Your task to perform on an android device: delete browsing data in the chrome app Image 0: 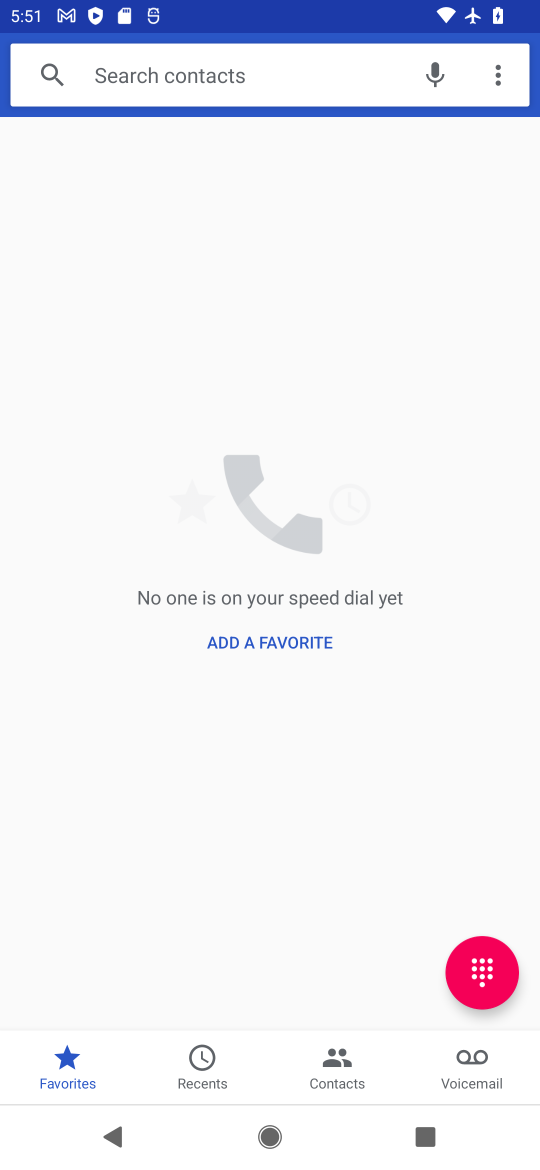
Step 0: press home button
Your task to perform on an android device: delete browsing data in the chrome app Image 1: 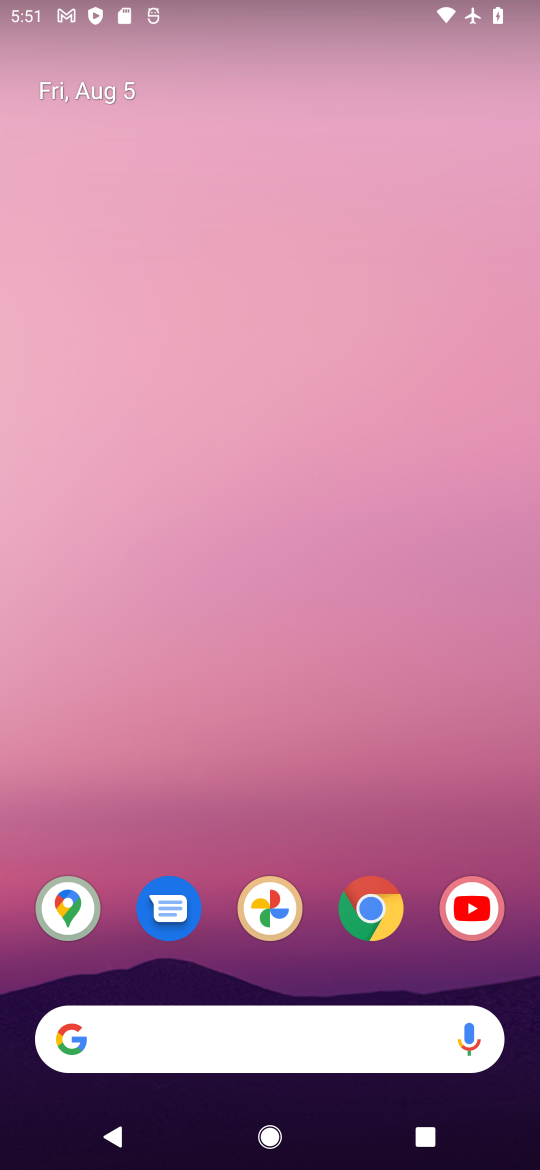
Step 1: click (379, 924)
Your task to perform on an android device: delete browsing data in the chrome app Image 2: 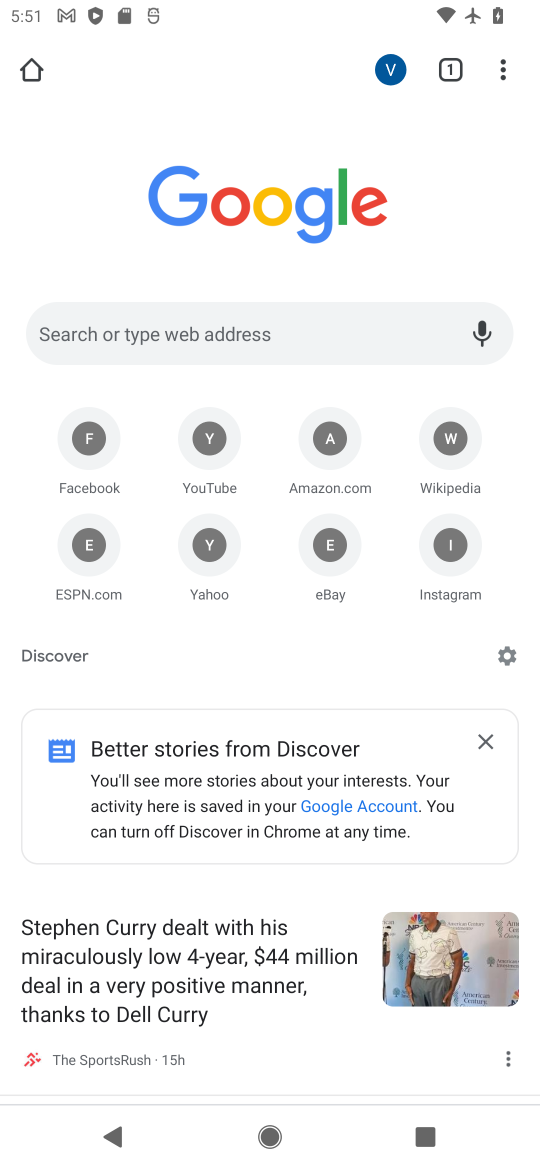
Step 2: click (502, 74)
Your task to perform on an android device: delete browsing data in the chrome app Image 3: 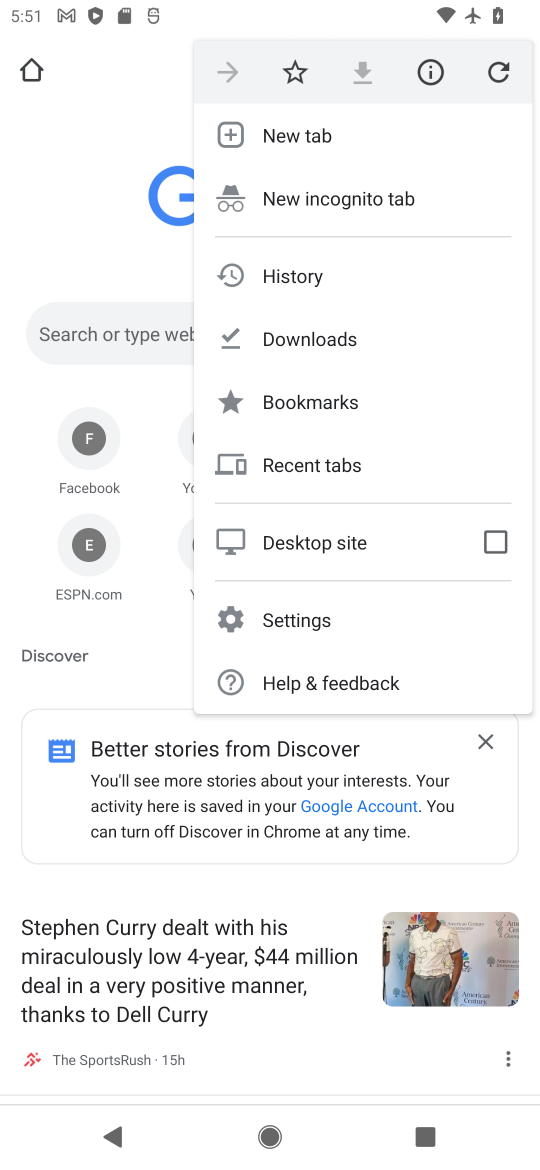
Step 3: click (312, 269)
Your task to perform on an android device: delete browsing data in the chrome app Image 4: 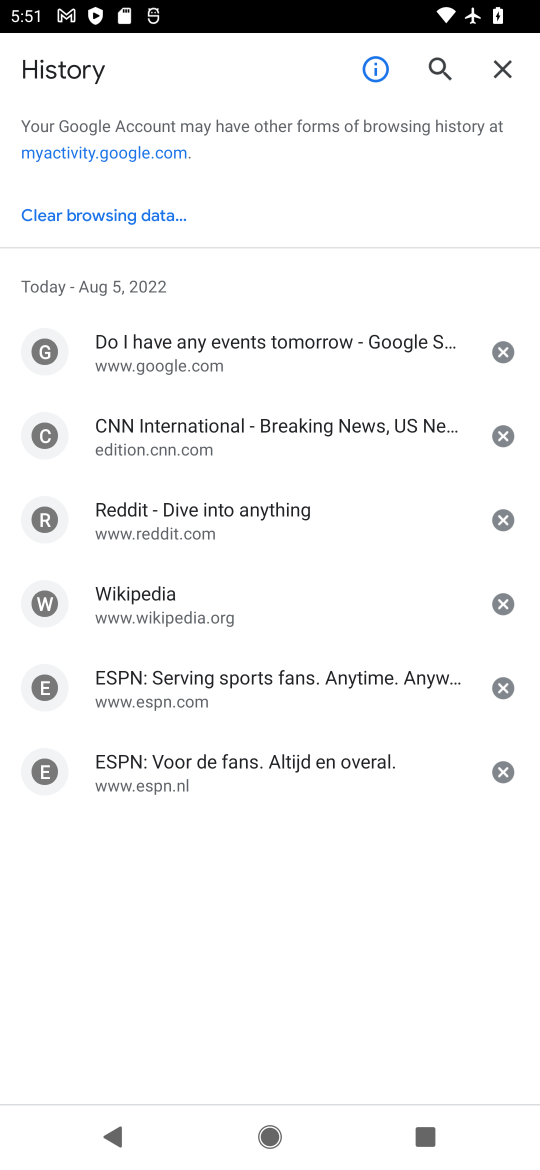
Step 4: click (154, 212)
Your task to perform on an android device: delete browsing data in the chrome app Image 5: 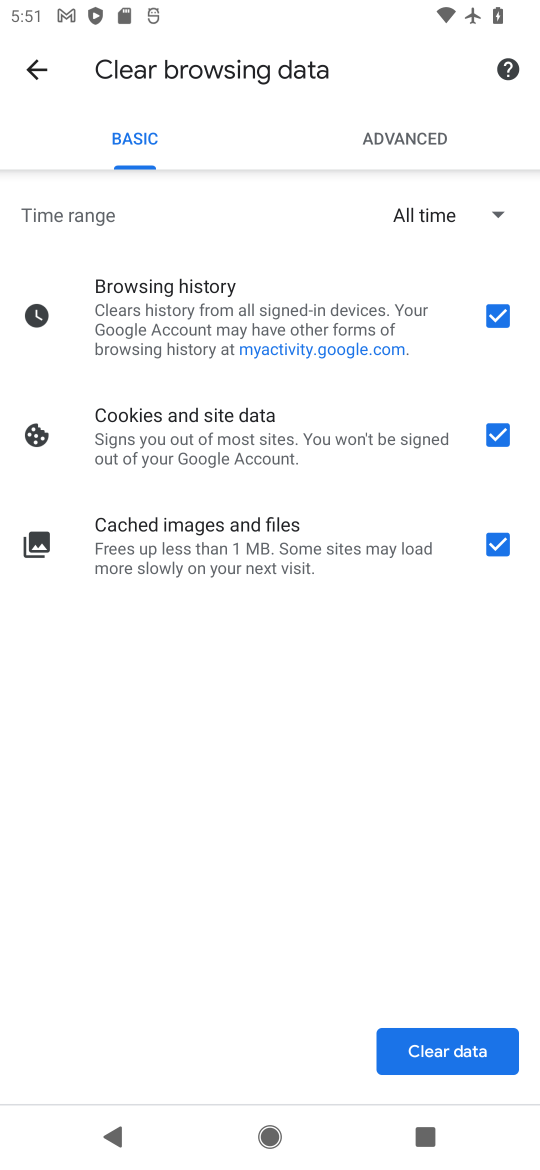
Step 5: click (480, 1054)
Your task to perform on an android device: delete browsing data in the chrome app Image 6: 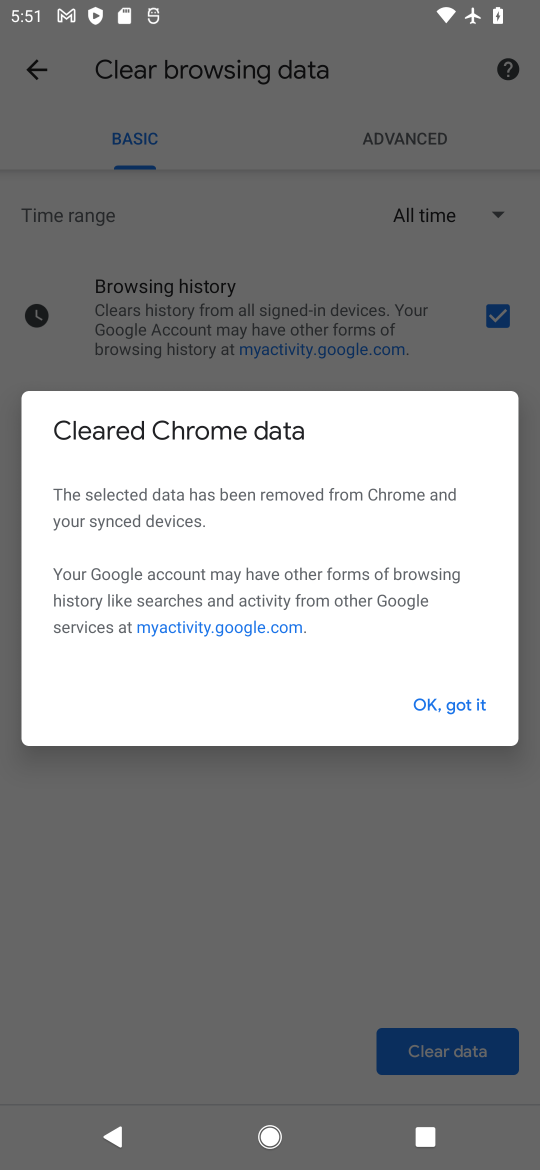
Step 6: click (478, 709)
Your task to perform on an android device: delete browsing data in the chrome app Image 7: 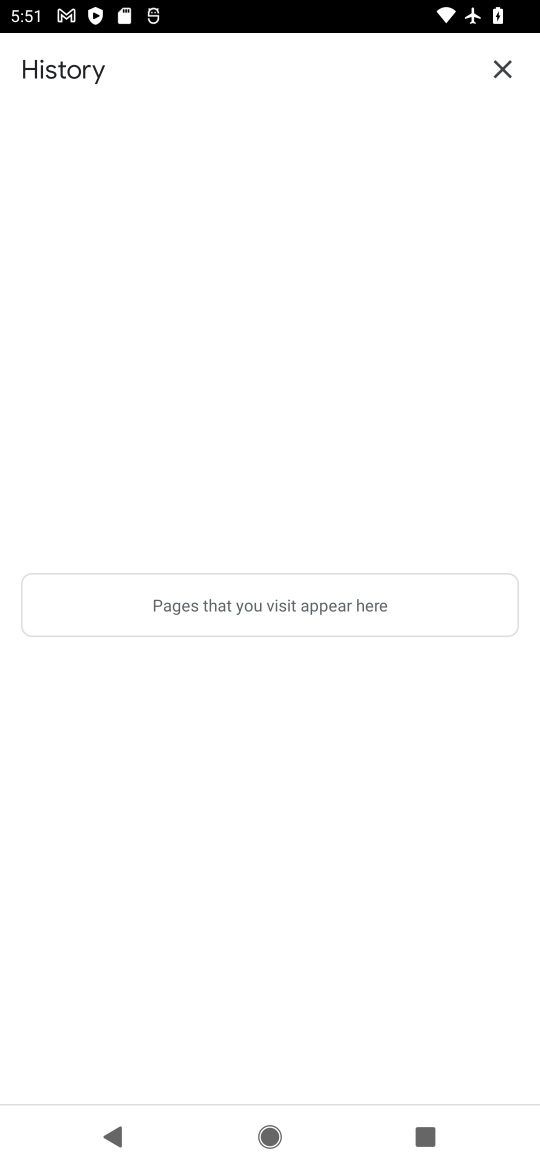
Step 7: task complete